Your task to perform on an android device: Clear the shopping cart on newegg.com. Add logitech g pro to the cart on newegg.com Image 0: 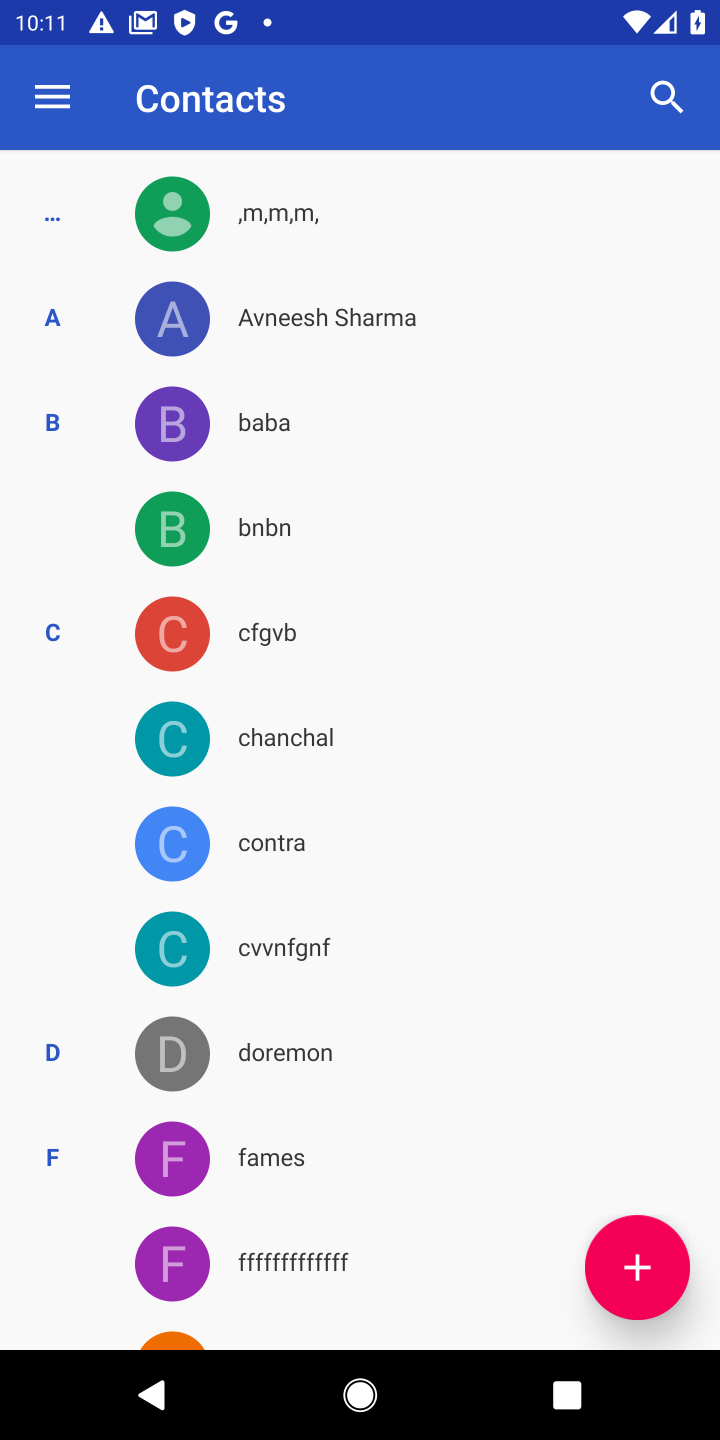
Step 0: press home button
Your task to perform on an android device: Clear the shopping cart on newegg.com. Add logitech g pro to the cart on newegg.com Image 1: 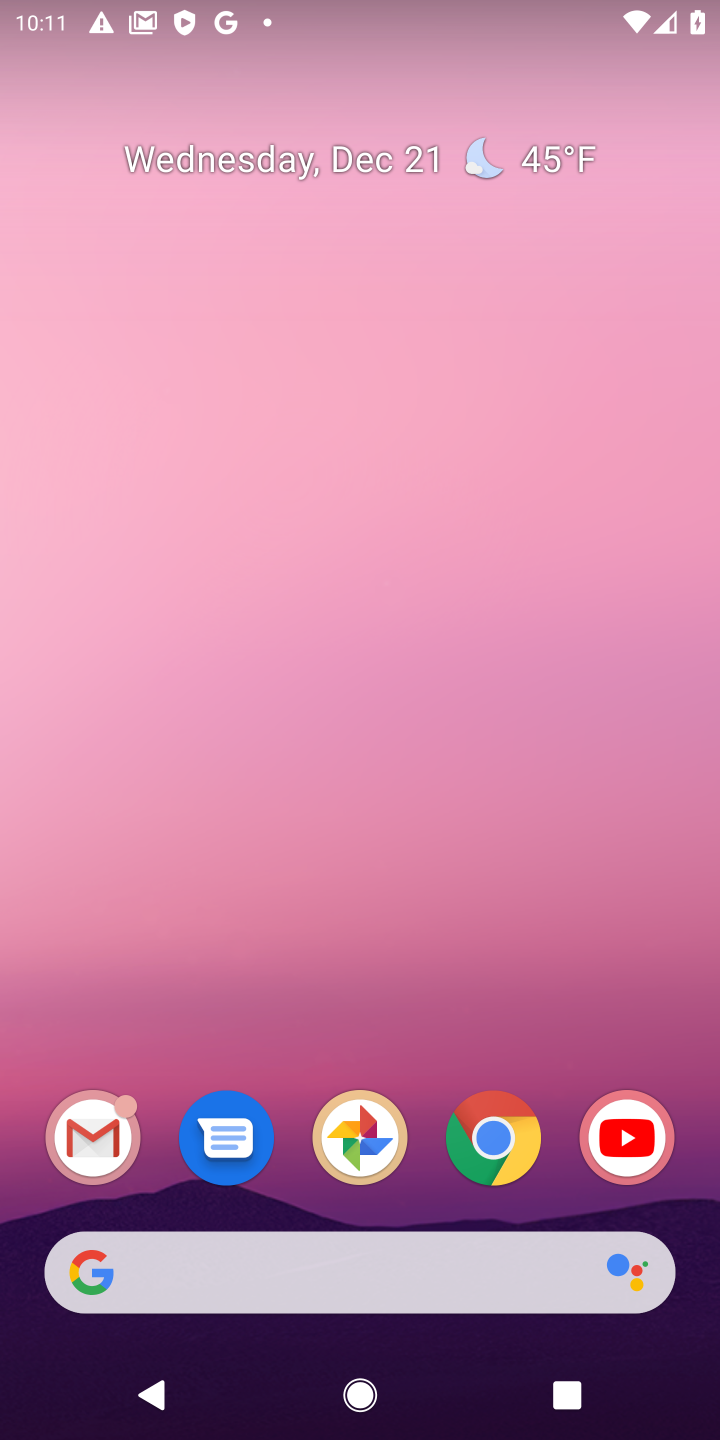
Step 1: click (494, 1159)
Your task to perform on an android device: Clear the shopping cart on newegg.com. Add logitech g pro to the cart on newegg.com Image 2: 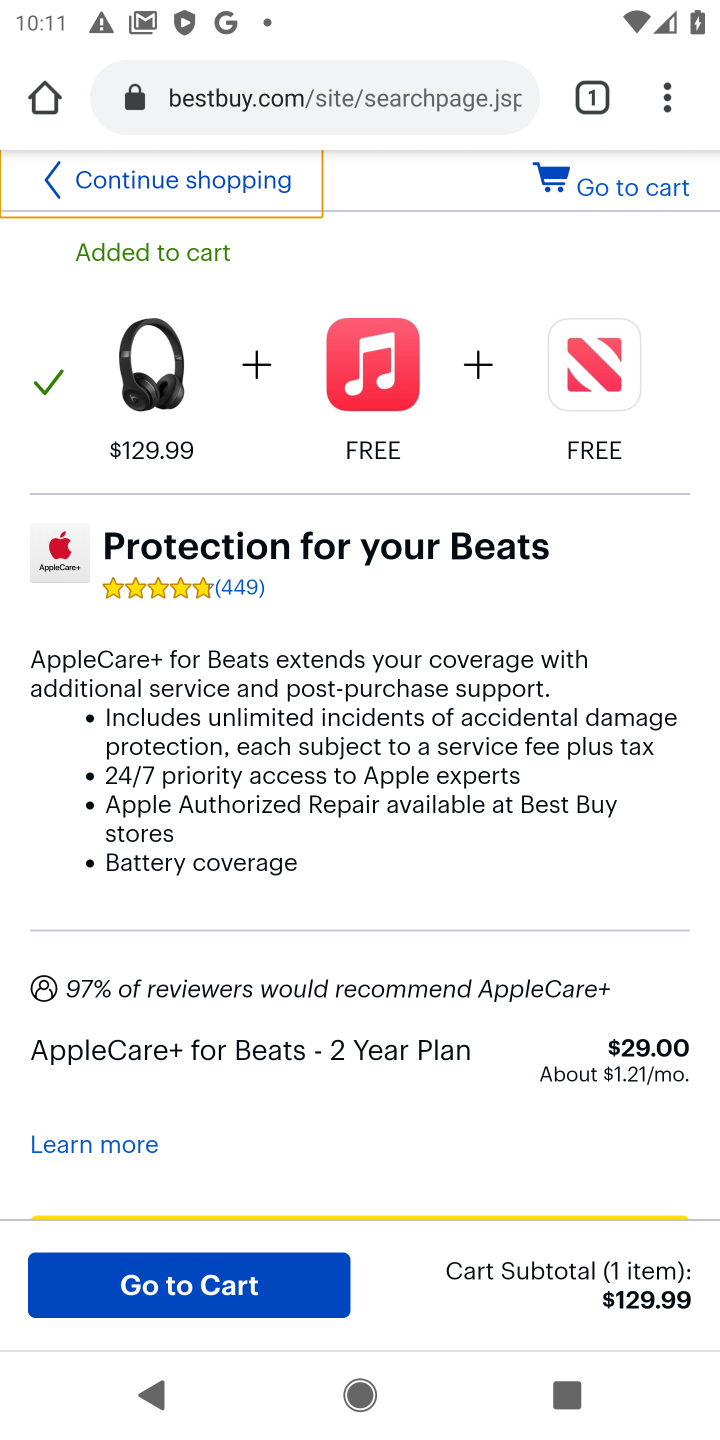
Step 2: click (247, 89)
Your task to perform on an android device: Clear the shopping cart on newegg.com. Add logitech g pro to the cart on newegg.com Image 3: 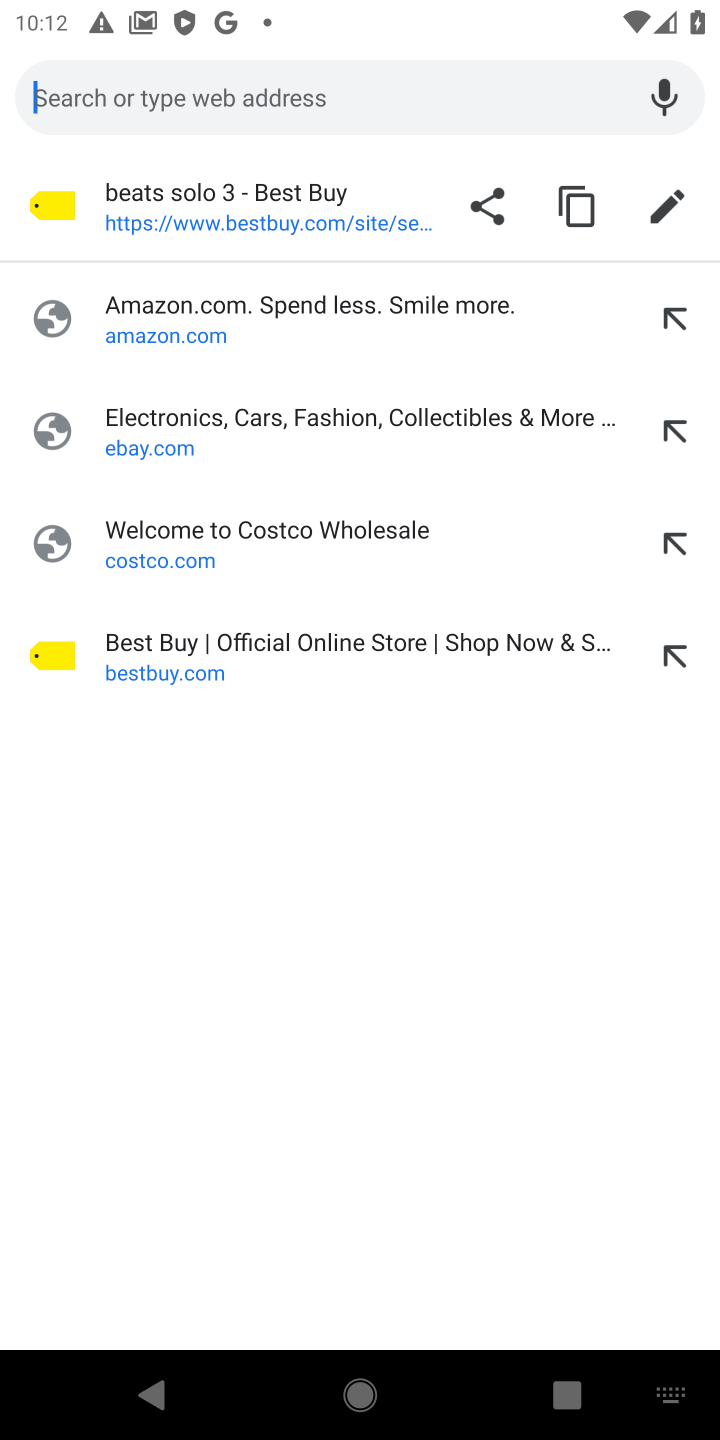
Step 3: type "newegg.com"
Your task to perform on an android device: Clear the shopping cart on newegg.com. Add logitech g pro to the cart on newegg.com Image 4: 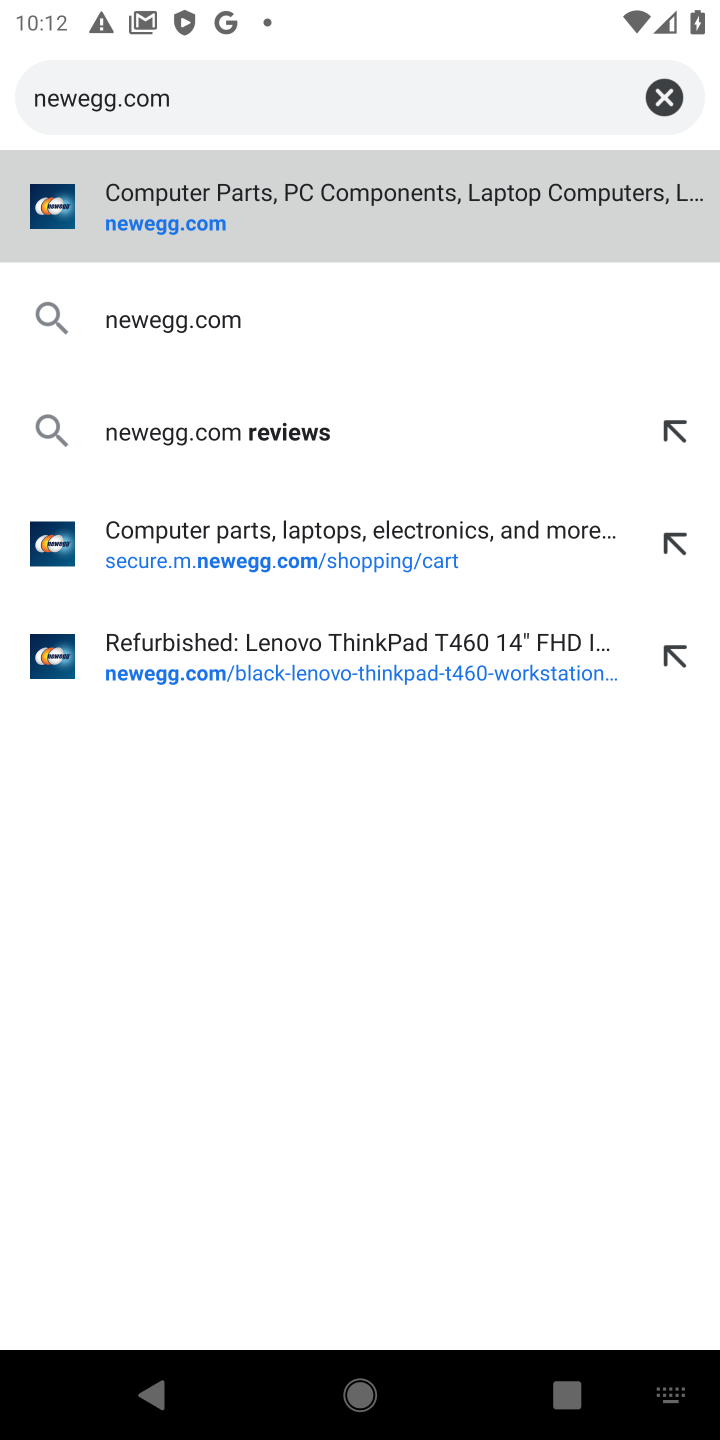
Step 4: click (161, 234)
Your task to perform on an android device: Clear the shopping cart on newegg.com. Add logitech g pro to the cart on newegg.com Image 5: 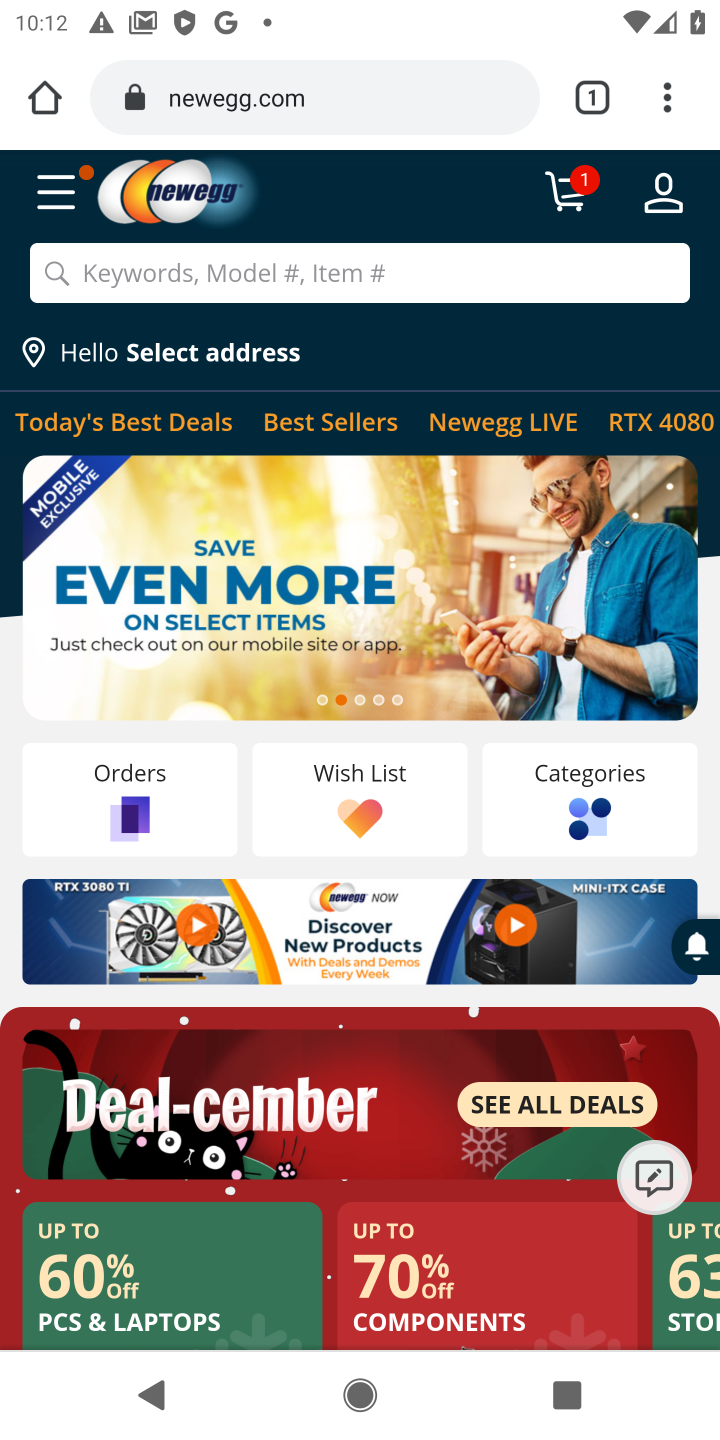
Step 5: click (577, 193)
Your task to perform on an android device: Clear the shopping cart on newegg.com. Add logitech g pro to the cart on newegg.com Image 6: 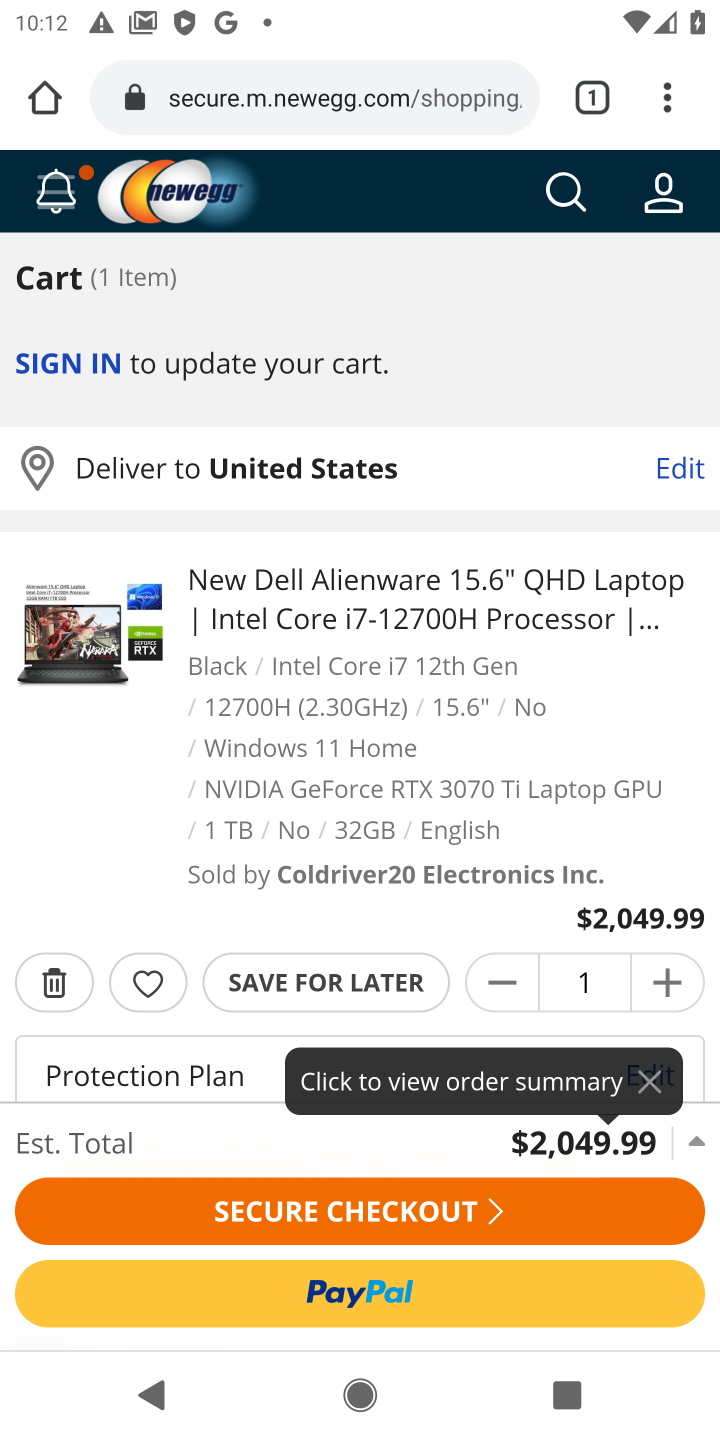
Step 6: click (51, 992)
Your task to perform on an android device: Clear the shopping cart on newegg.com. Add logitech g pro to the cart on newegg.com Image 7: 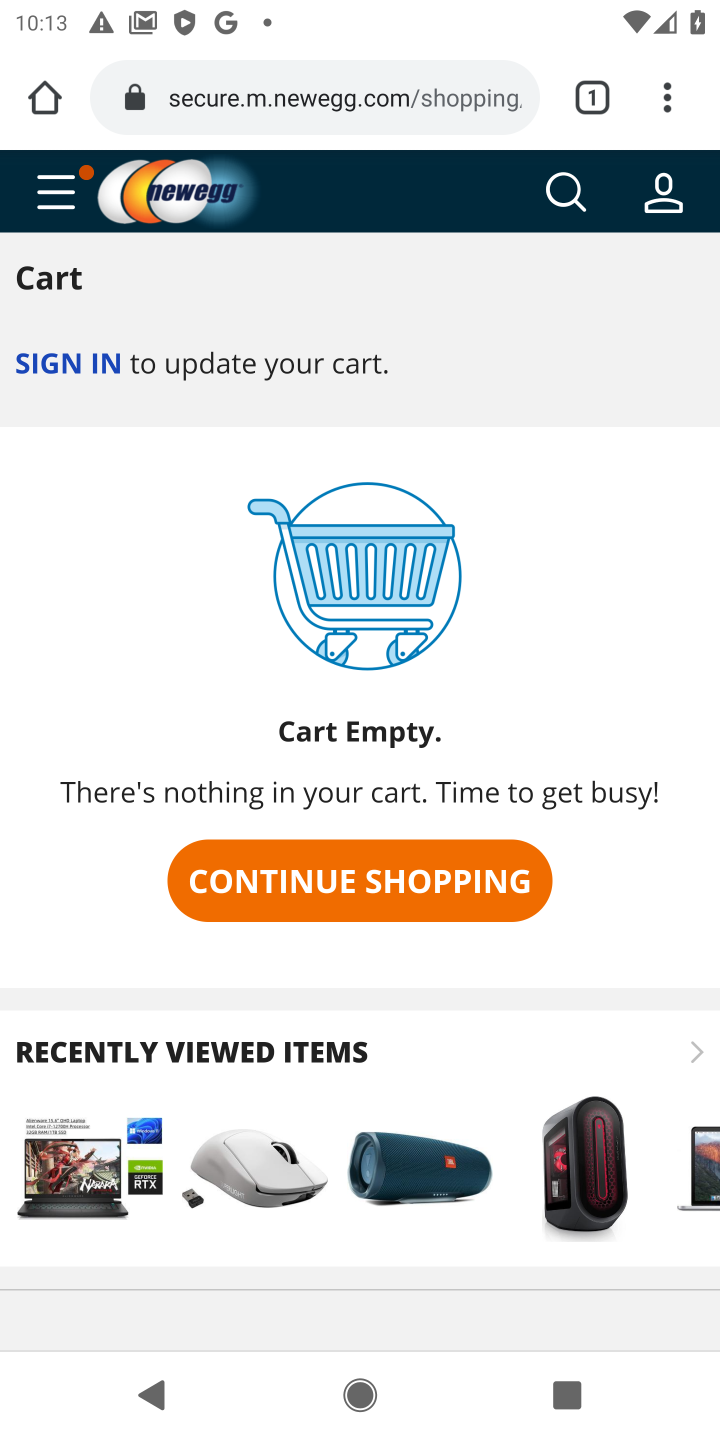
Step 7: click (551, 198)
Your task to perform on an android device: Clear the shopping cart on newegg.com. Add logitech g pro to the cart on newegg.com Image 8: 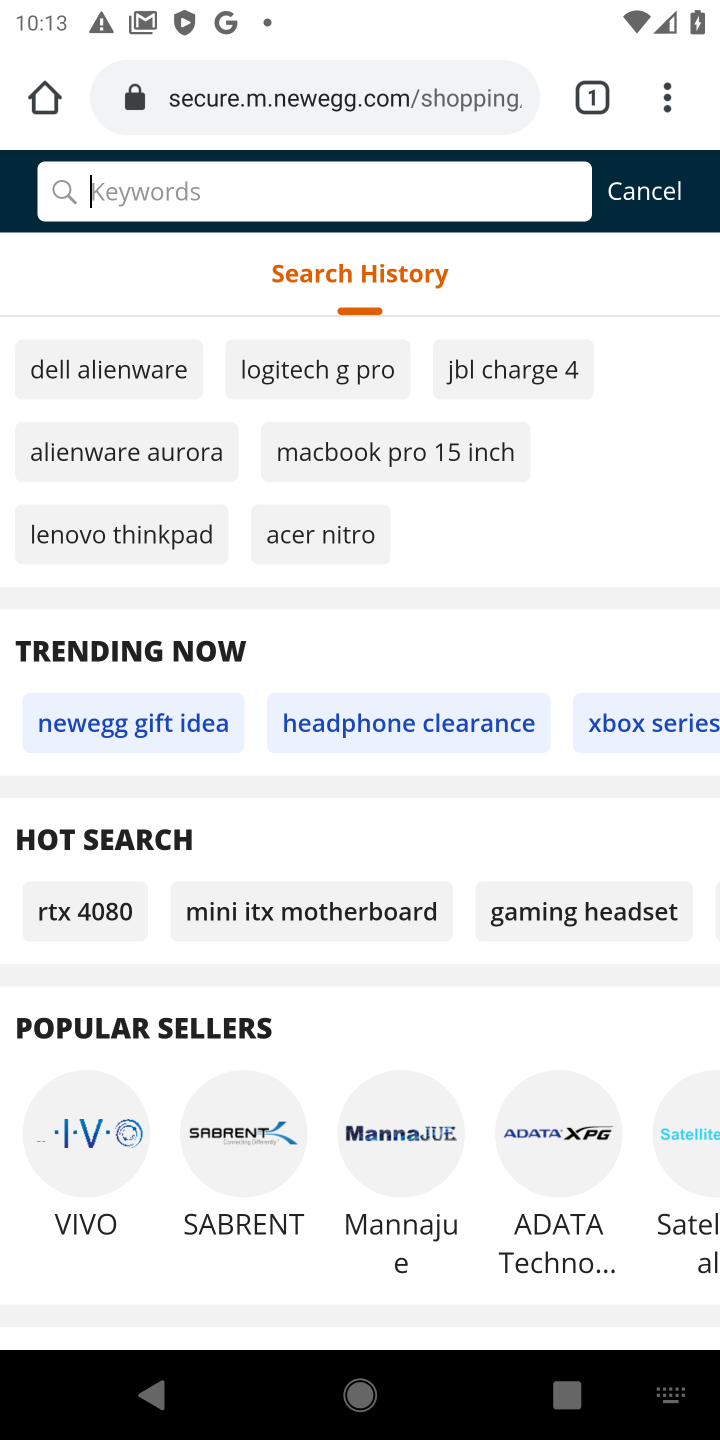
Step 8: type "logitech g pro"
Your task to perform on an android device: Clear the shopping cart on newegg.com. Add logitech g pro to the cart on newegg.com Image 9: 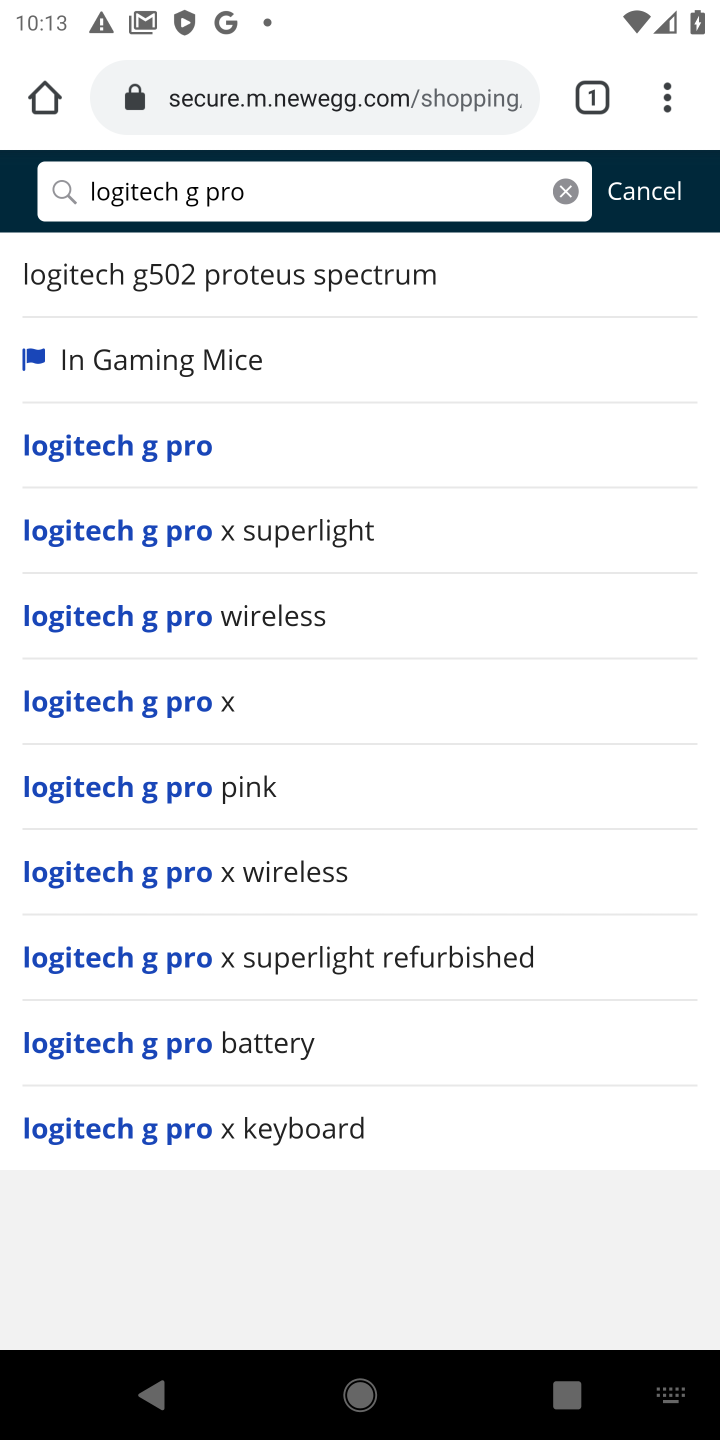
Step 9: click (108, 449)
Your task to perform on an android device: Clear the shopping cart on newegg.com. Add logitech g pro to the cart on newegg.com Image 10: 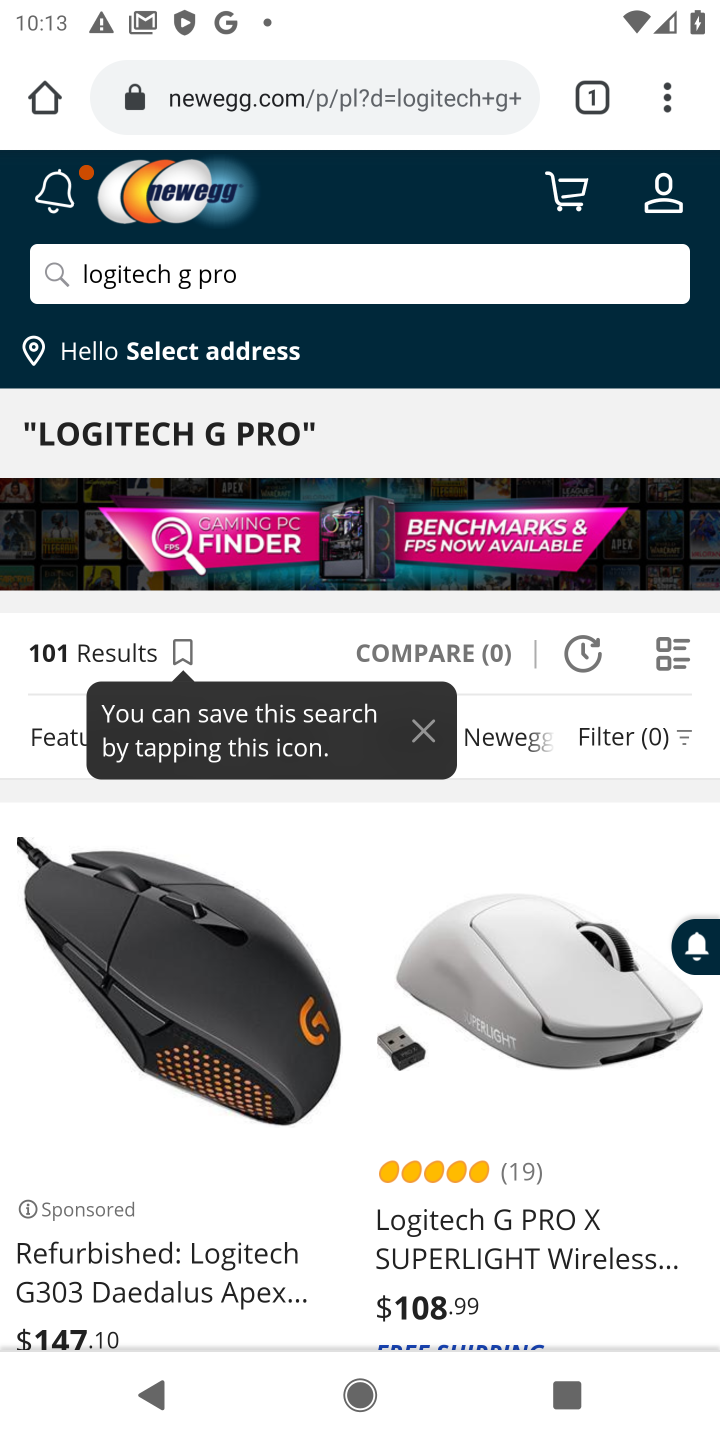
Step 10: drag from (197, 923) to (209, 537)
Your task to perform on an android device: Clear the shopping cart on newegg.com. Add logitech g pro to the cart on newegg.com Image 11: 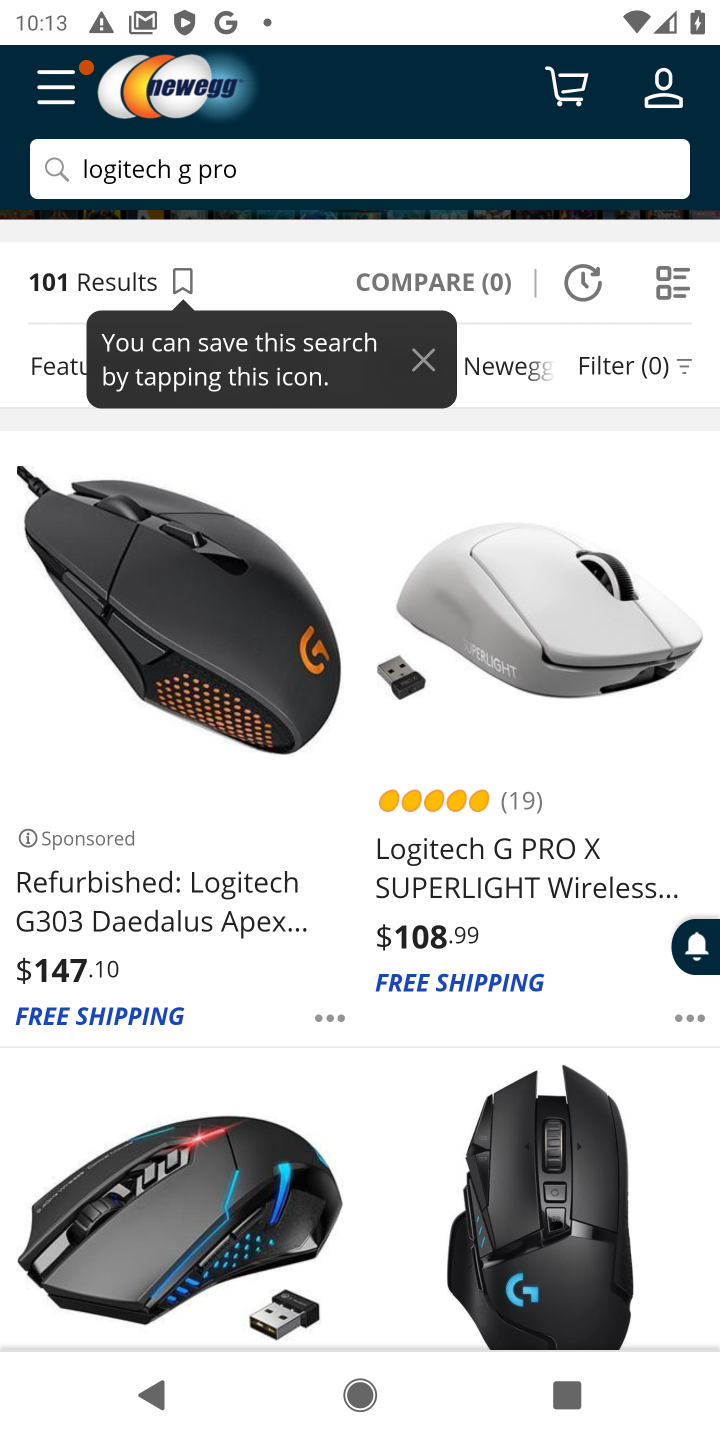
Step 11: click (506, 867)
Your task to perform on an android device: Clear the shopping cart on newegg.com. Add logitech g pro to the cart on newegg.com Image 12: 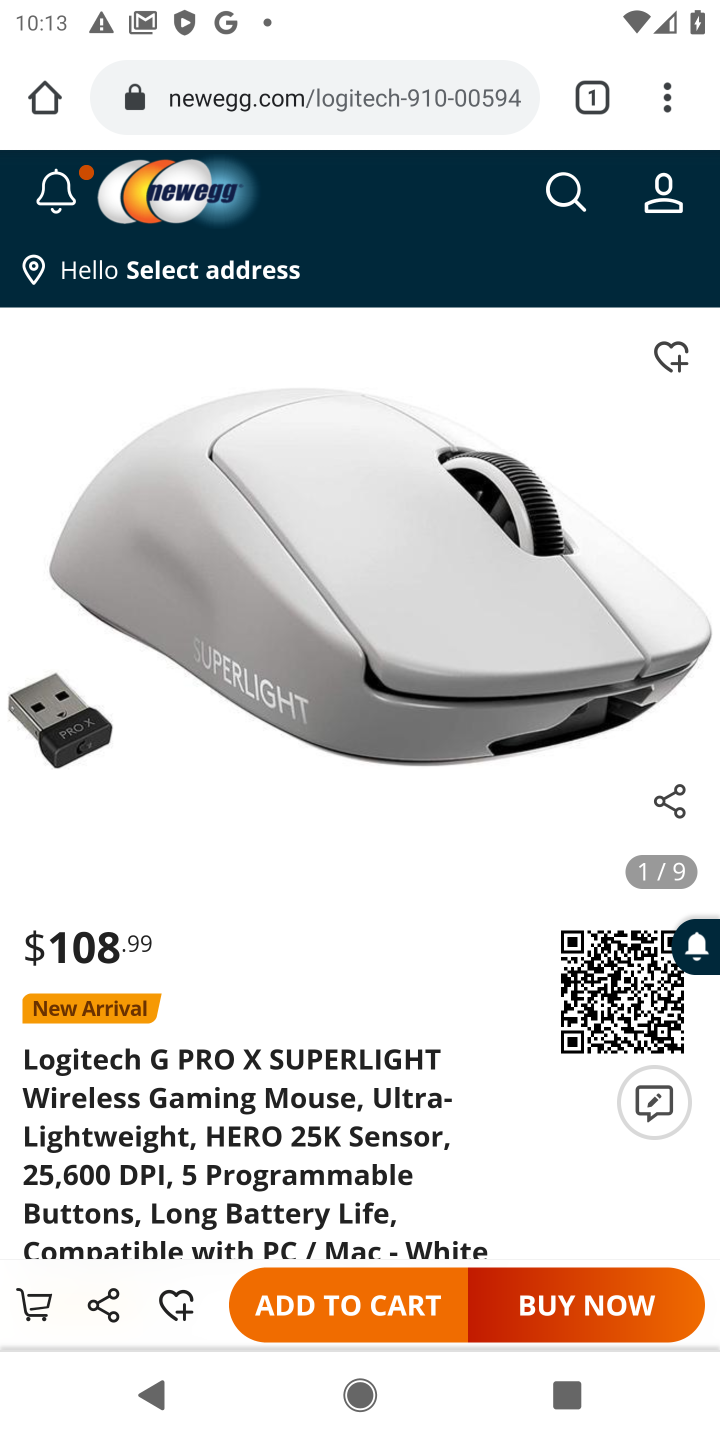
Step 12: click (342, 1317)
Your task to perform on an android device: Clear the shopping cart on newegg.com. Add logitech g pro to the cart on newegg.com Image 13: 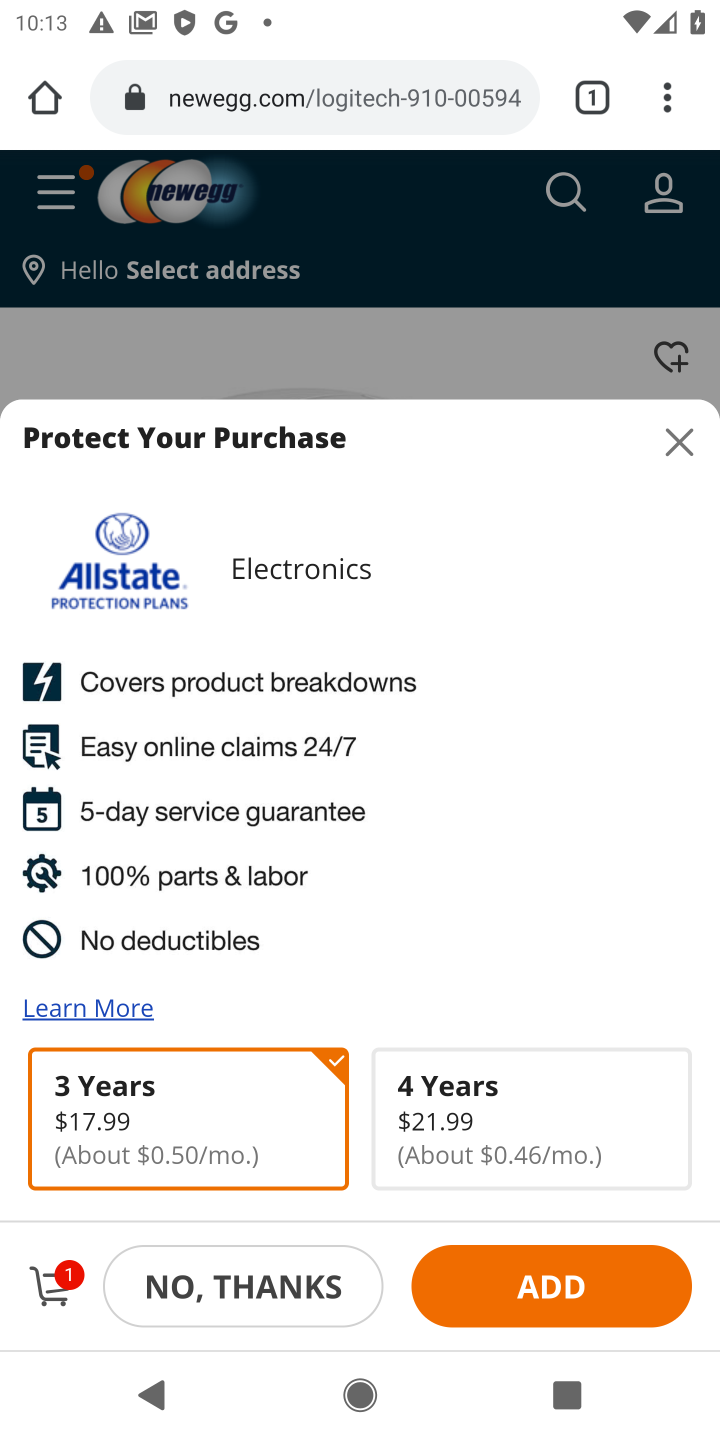
Step 13: task complete